Your task to perform on an android device: Go to notification settings Image 0: 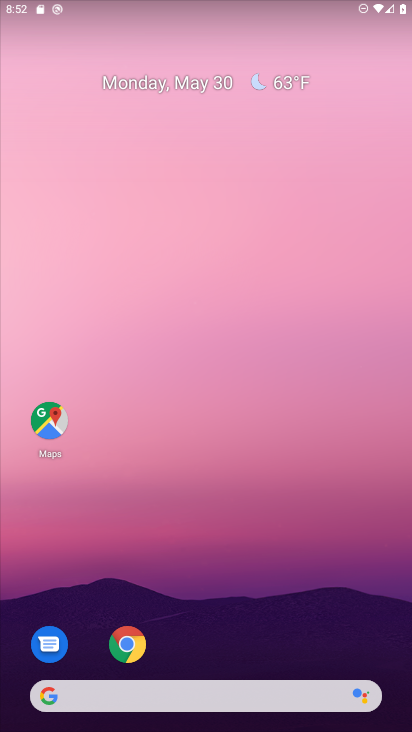
Step 0: drag from (211, 591) to (246, 96)
Your task to perform on an android device: Go to notification settings Image 1: 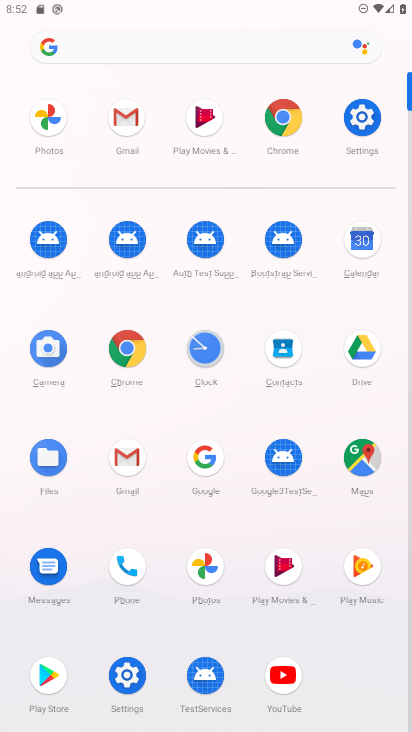
Step 1: click (361, 122)
Your task to perform on an android device: Go to notification settings Image 2: 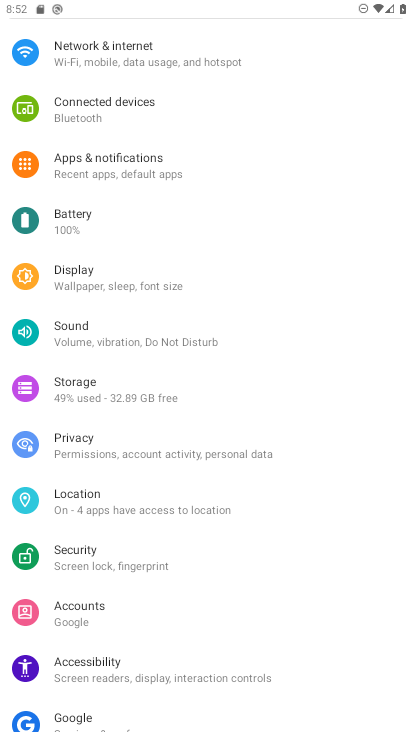
Step 2: click (131, 166)
Your task to perform on an android device: Go to notification settings Image 3: 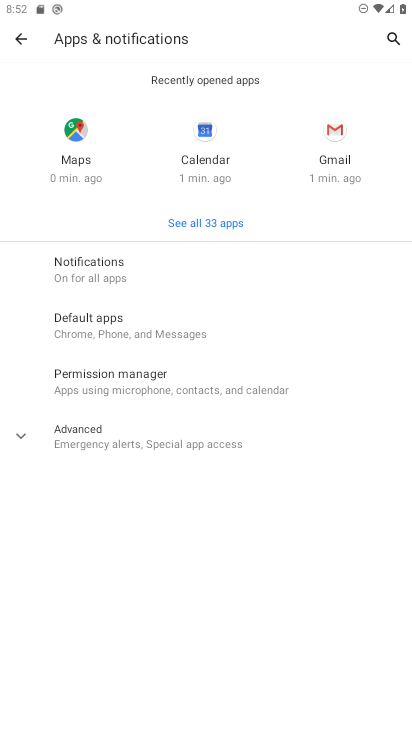
Step 3: click (85, 254)
Your task to perform on an android device: Go to notification settings Image 4: 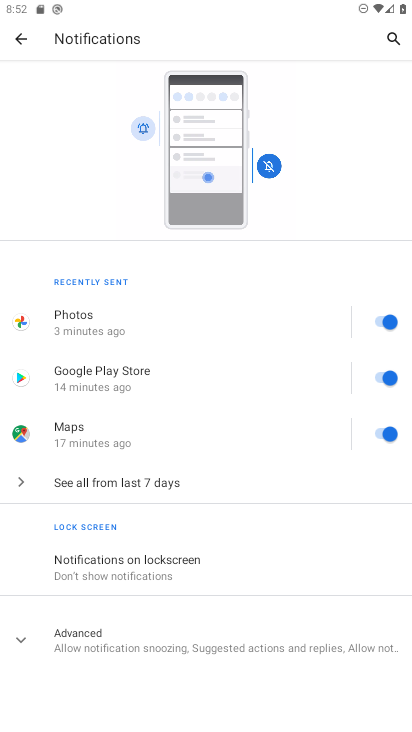
Step 4: task complete